Your task to perform on an android device: open app "Adobe Express: Graphic Design" (install if not already installed) and go to login screen Image 0: 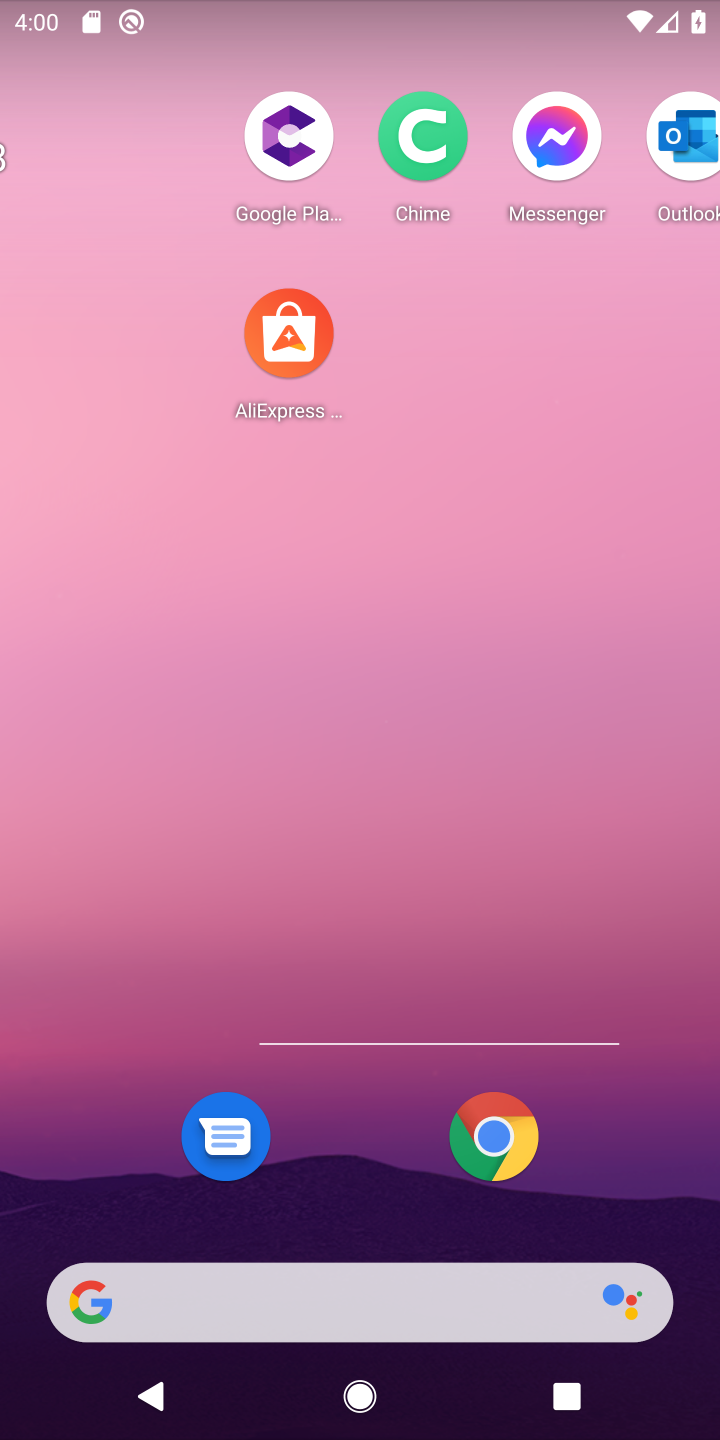
Step 0: drag from (258, 617) to (446, 434)
Your task to perform on an android device: open app "Adobe Express: Graphic Design" (install if not already installed) and go to login screen Image 1: 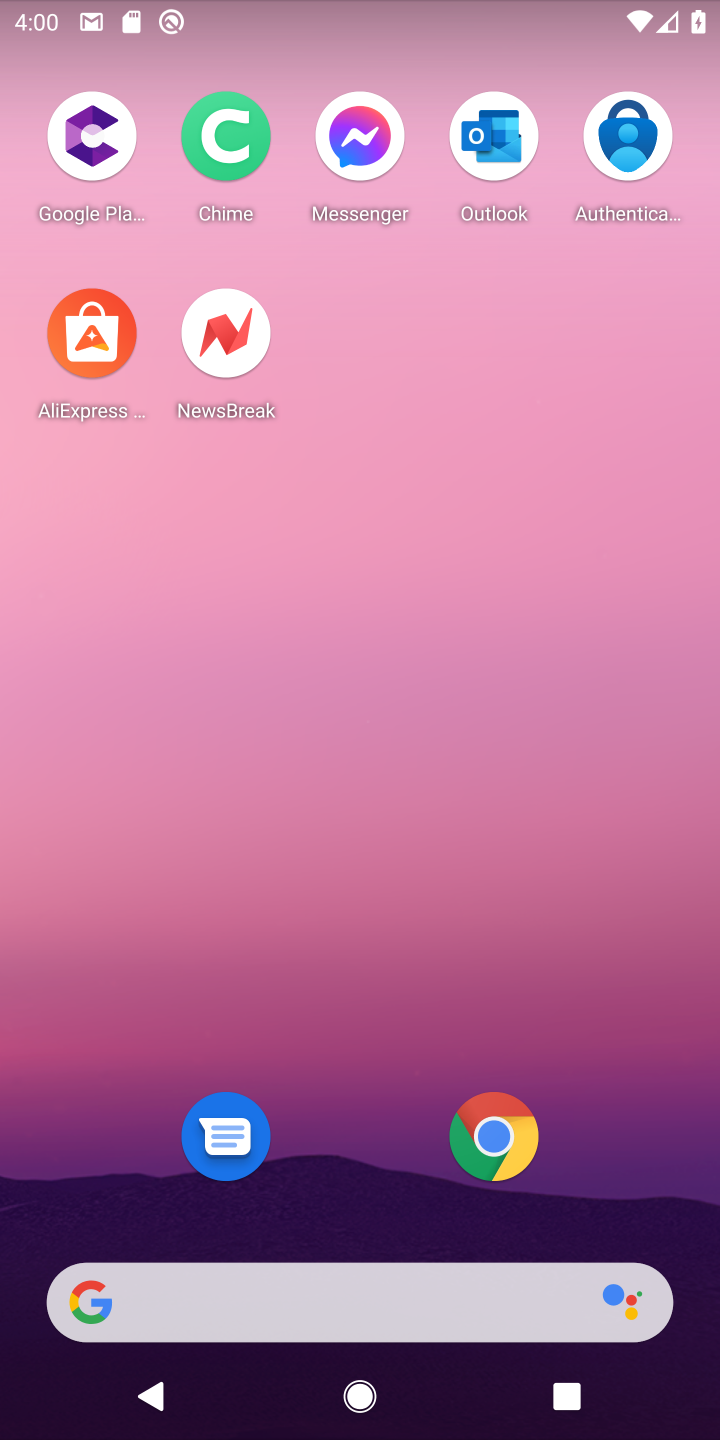
Step 1: drag from (284, 495) to (342, 8)
Your task to perform on an android device: open app "Adobe Express: Graphic Design" (install if not already installed) and go to login screen Image 2: 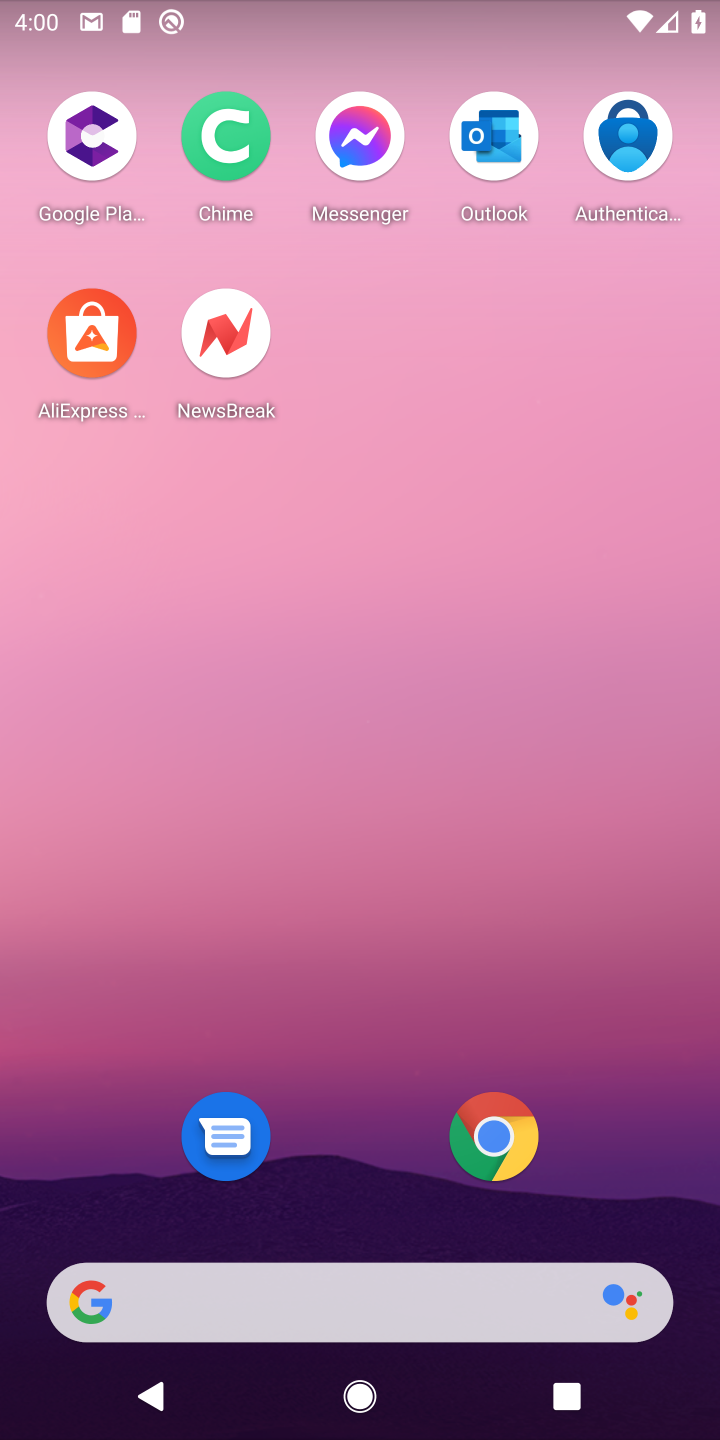
Step 2: drag from (382, 697) to (469, 102)
Your task to perform on an android device: open app "Adobe Express: Graphic Design" (install if not already installed) and go to login screen Image 3: 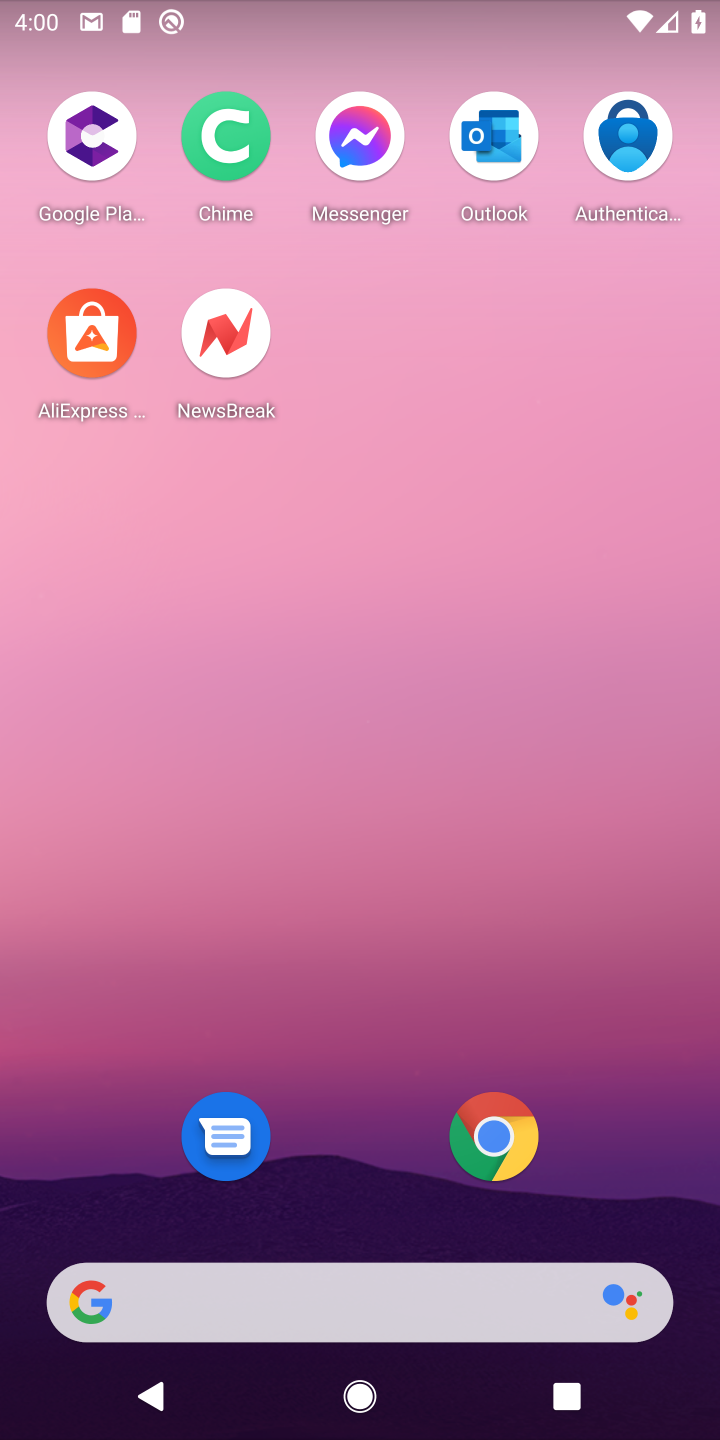
Step 3: drag from (323, 1266) to (345, 123)
Your task to perform on an android device: open app "Adobe Express: Graphic Design" (install if not already installed) and go to login screen Image 4: 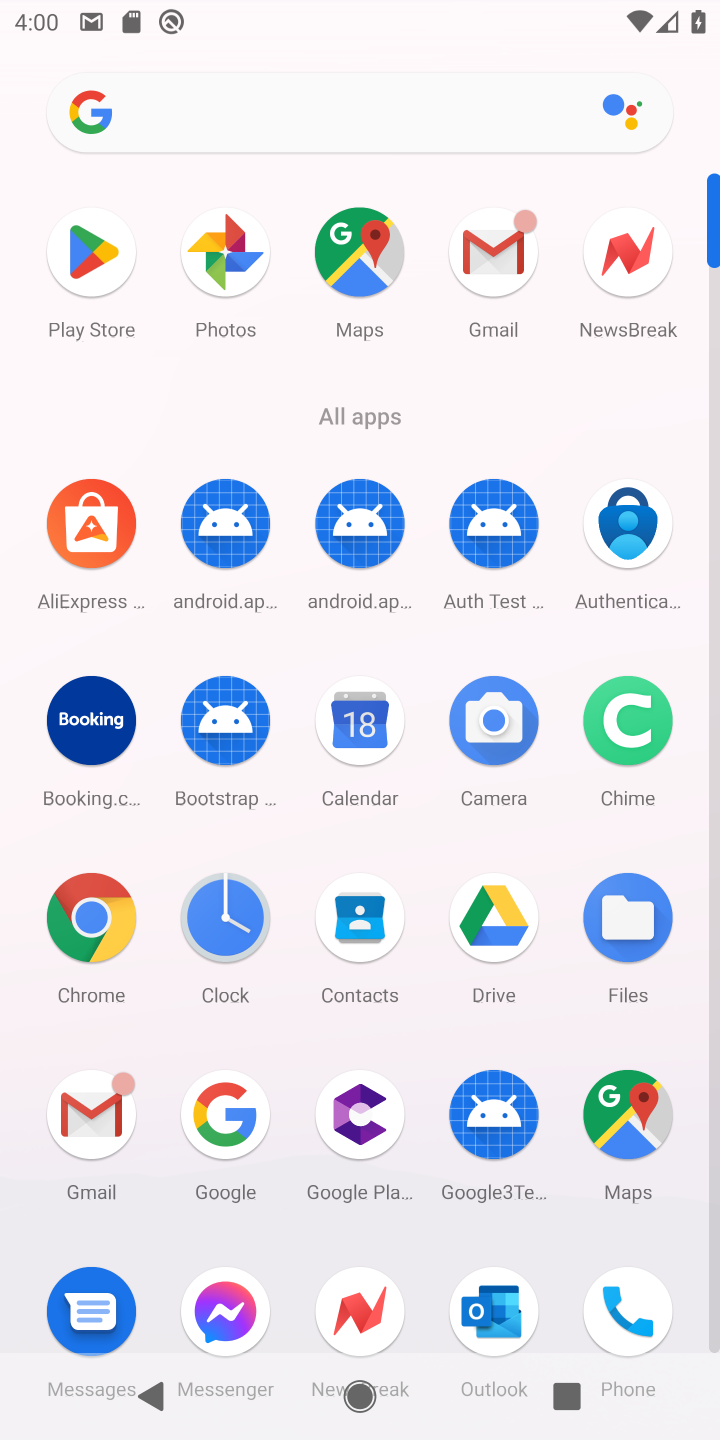
Step 4: click (73, 277)
Your task to perform on an android device: open app "Adobe Express: Graphic Design" (install if not already installed) and go to login screen Image 5: 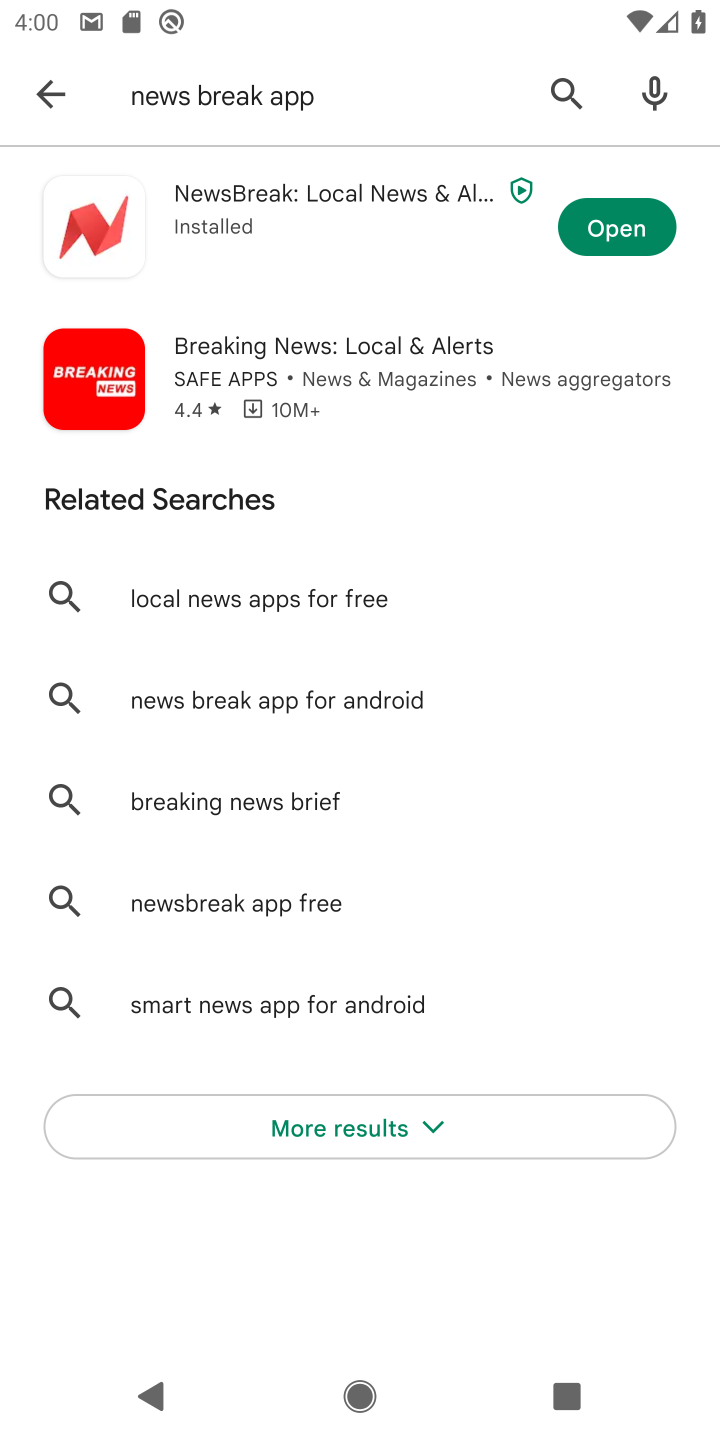
Step 5: click (229, 97)
Your task to perform on an android device: open app "Adobe Express: Graphic Design" (install if not already installed) and go to login screen Image 6: 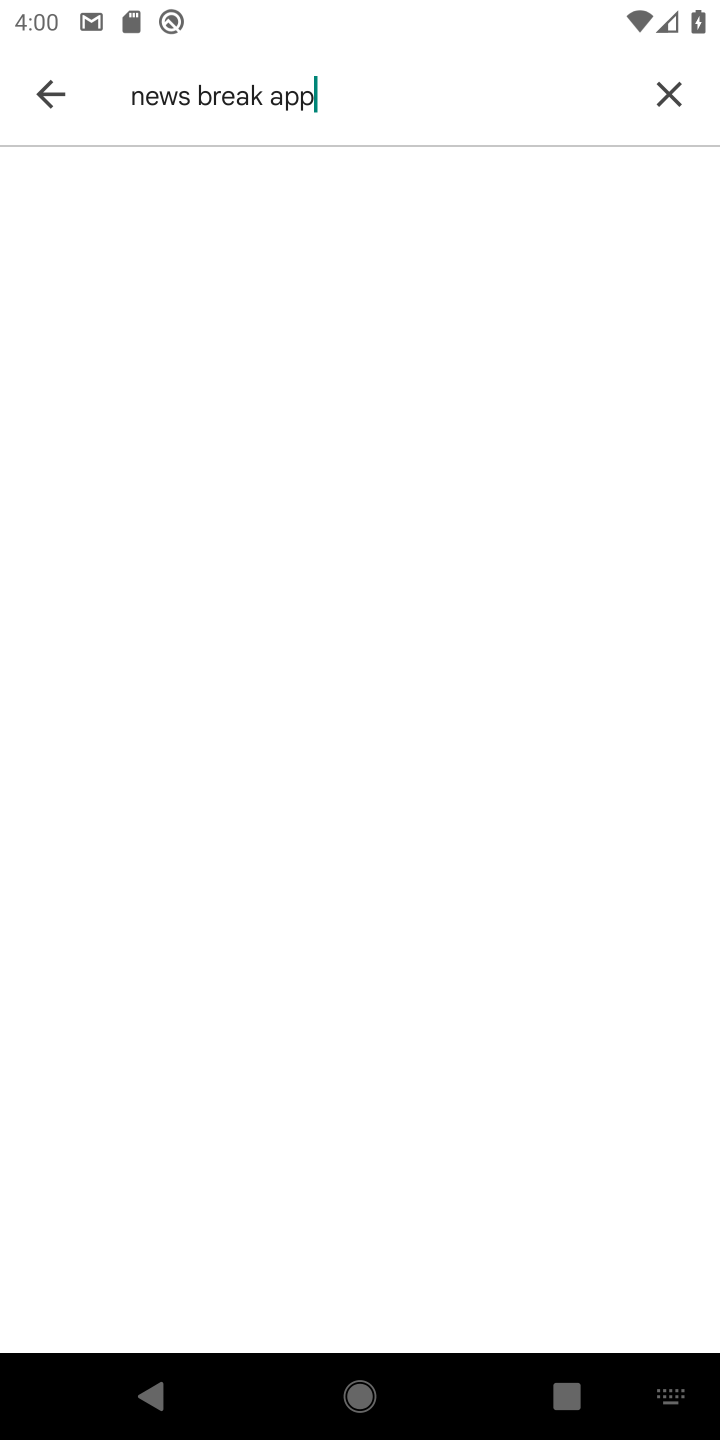
Step 6: click (674, 84)
Your task to perform on an android device: open app "Adobe Express: Graphic Design" (install if not already installed) and go to login screen Image 7: 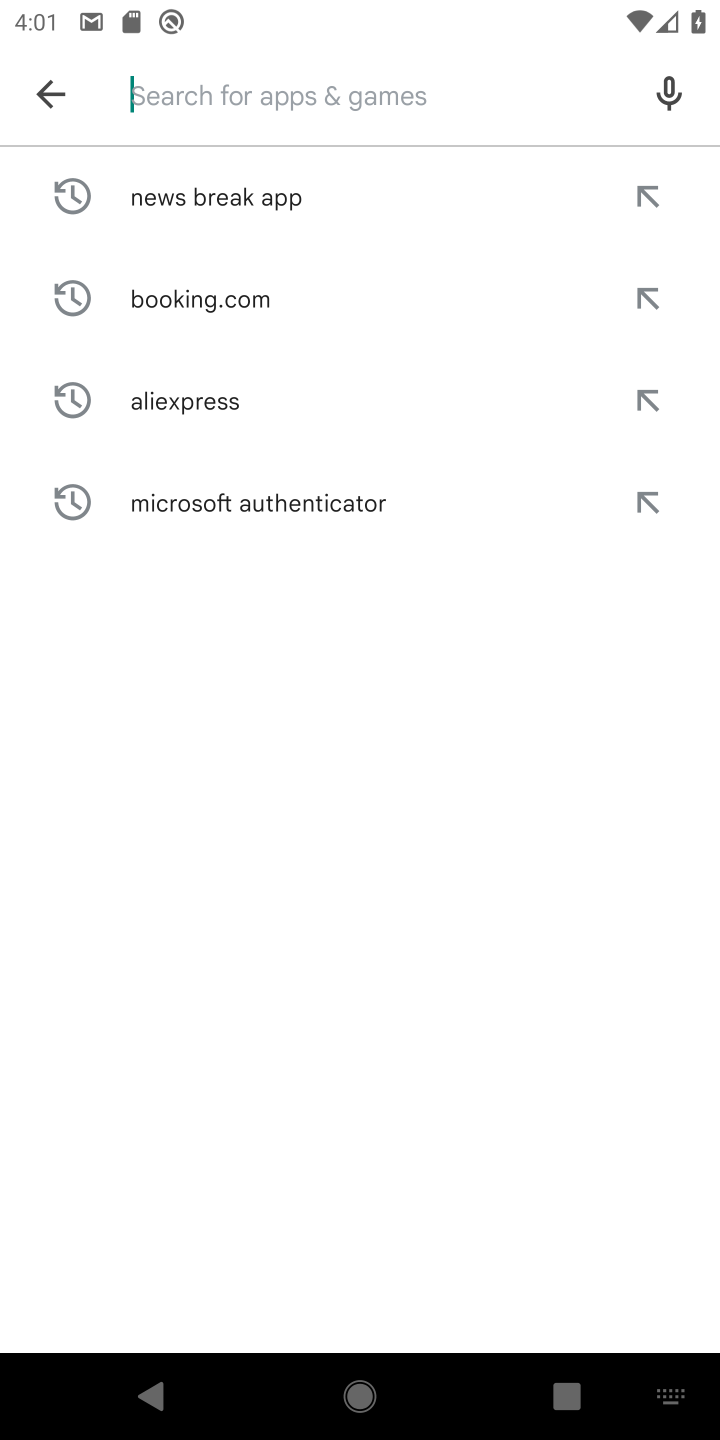
Step 7: type "Adobe express"
Your task to perform on an android device: open app "Adobe Express: Graphic Design" (install if not already installed) and go to login screen Image 8: 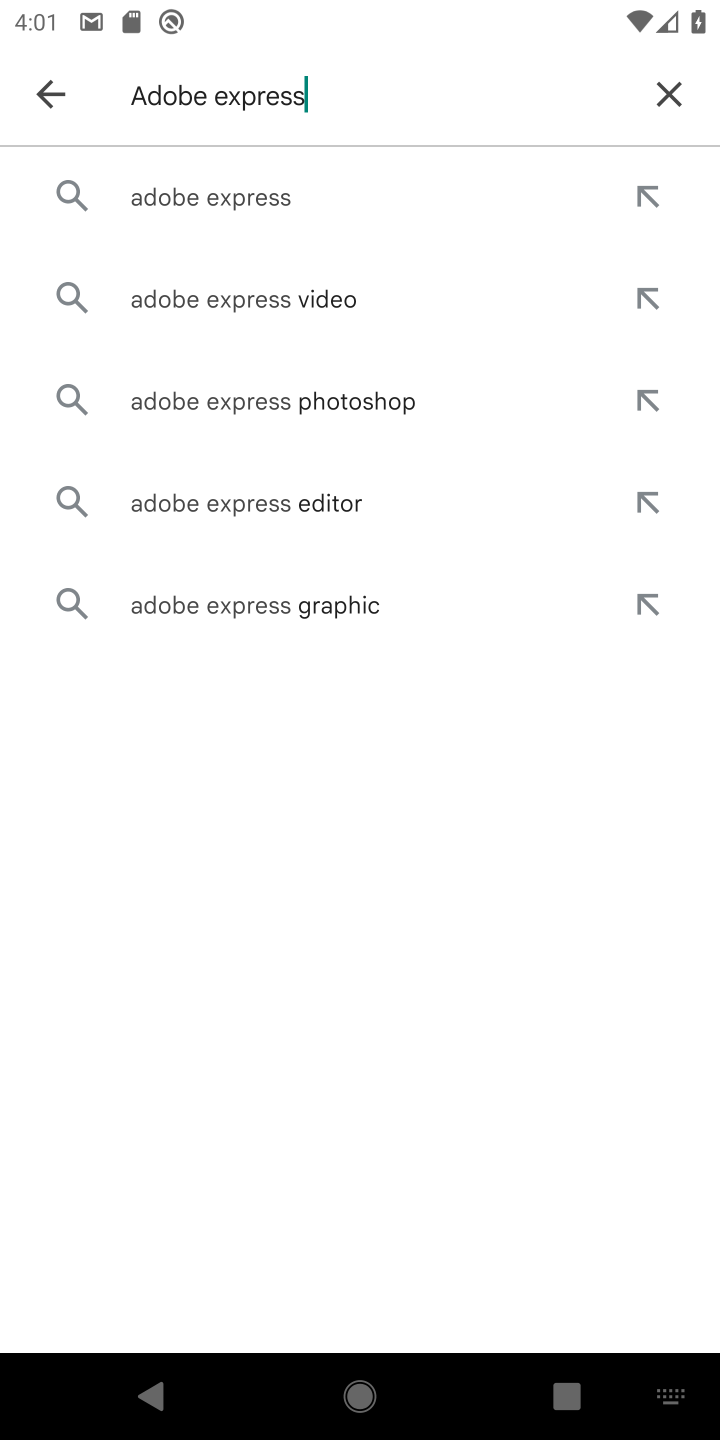
Step 8: click (204, 209)
Your task to perform on an android device: open app "Adobe Express: Graphic Design" (install if not already installed) and go to login screen Image 9: 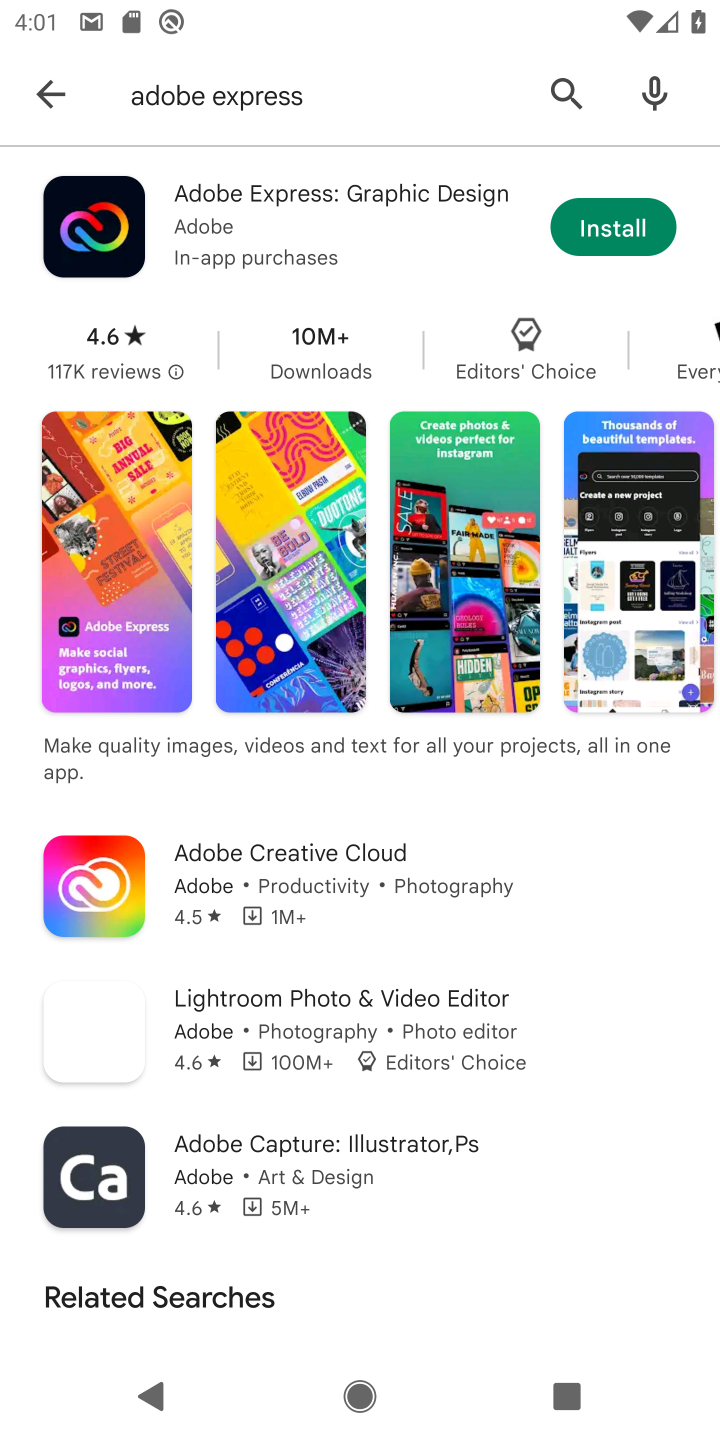
Step 9: click (650, 209)
Your task to perform on an android device: open app "Adobe Express: Graphic Design" (install if not already installed) and go to login screen Image 10: 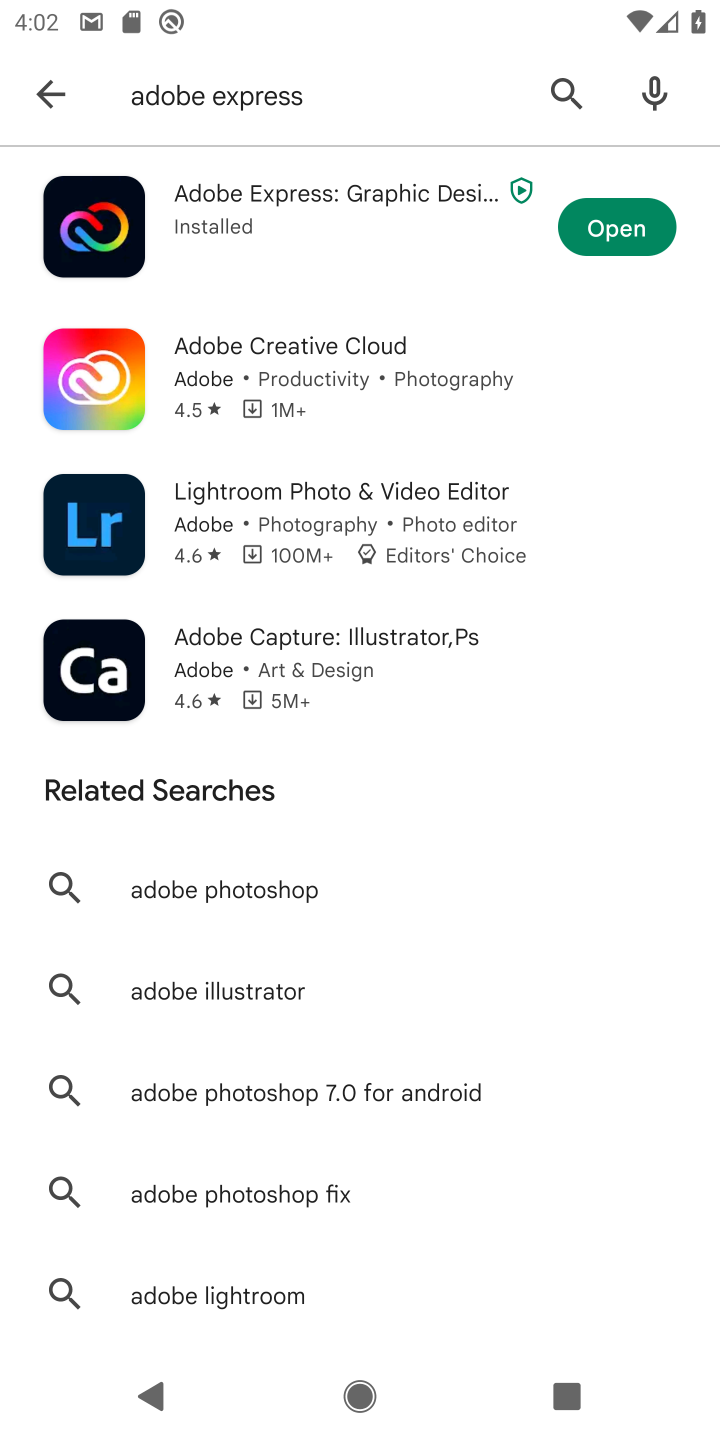
Step 10: click (615, 232)
Your task to perform on an android device: open app "Adobe Express: Graphic Design" (install if not already installed) and go to login screen Image 11: 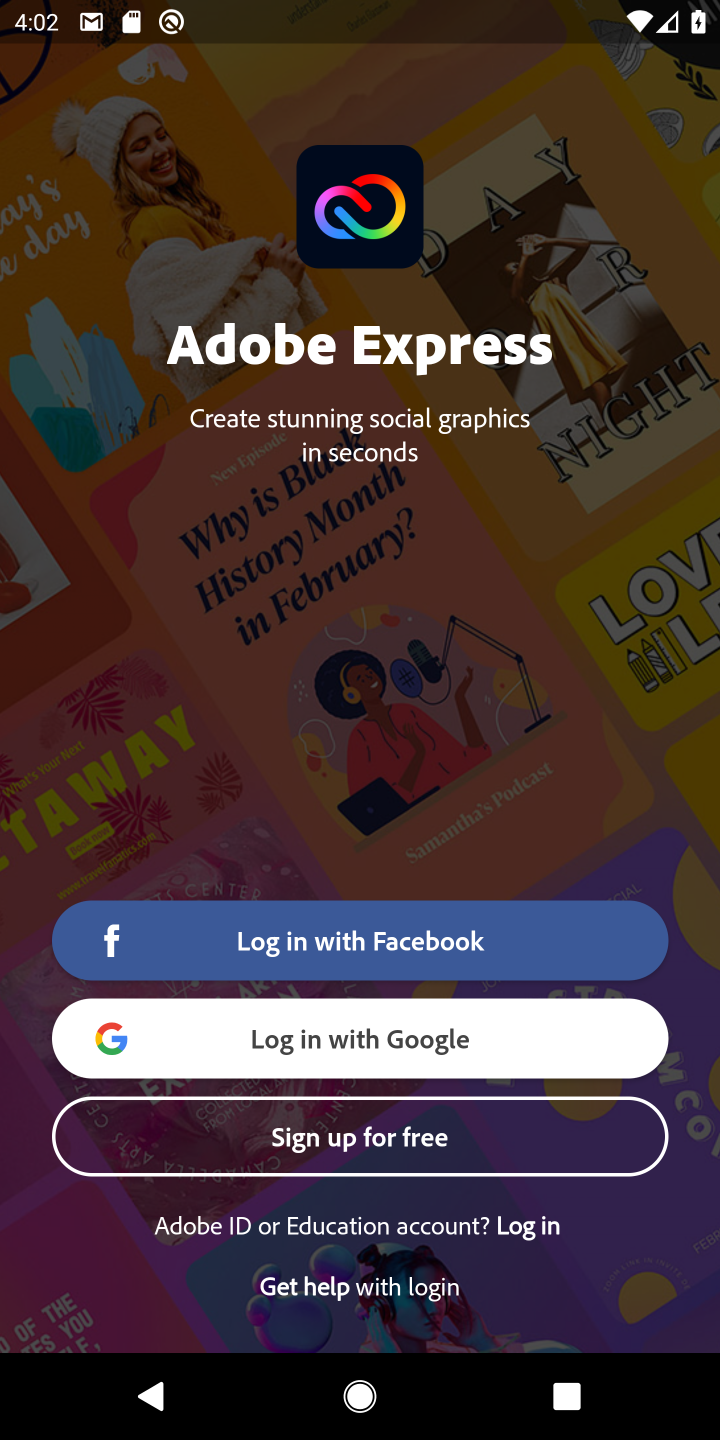
Step 11: click (503, 1239)
Your task to perform on an android device: open app "Adobe Express: Graphic Design" (install if not already installed) and go to login screen Image 12: 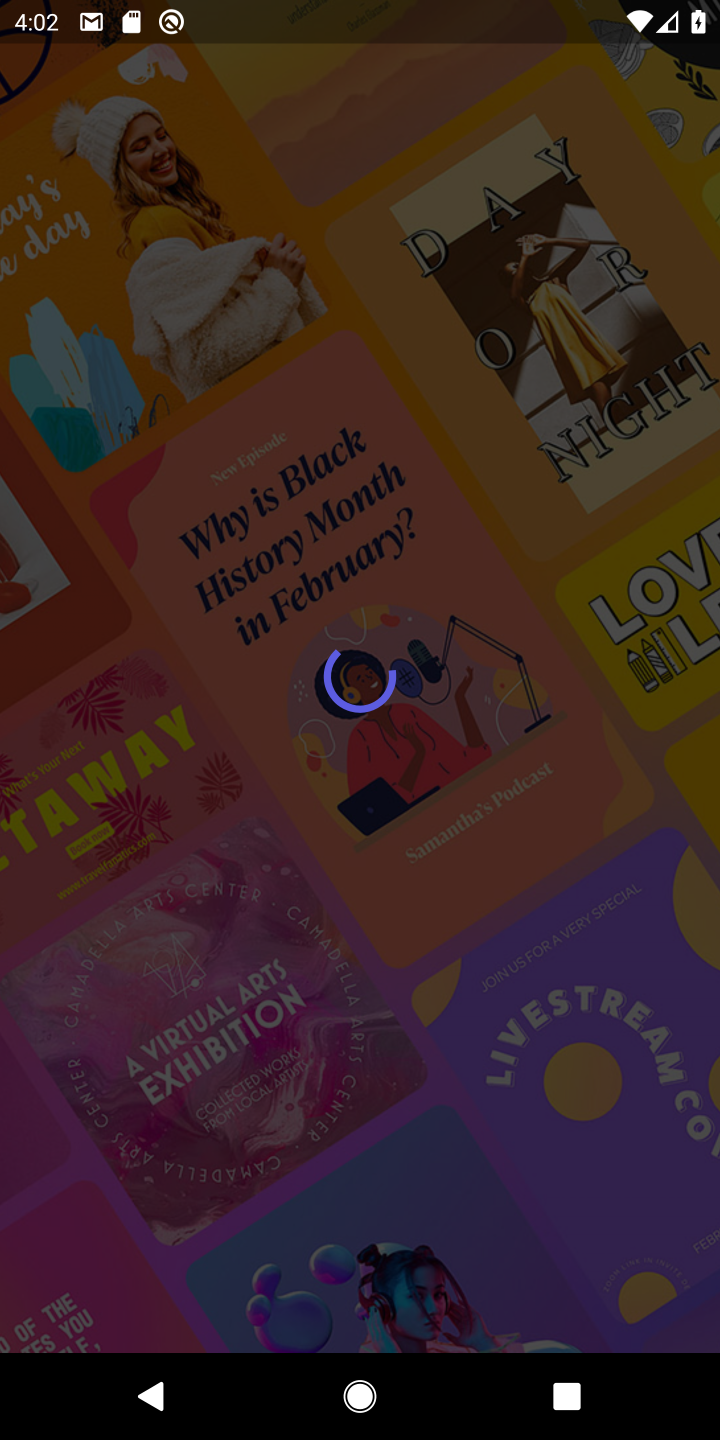
Step 12: click (531, 1229)
Your task to perform on an android device: open app "Adobe Express: Graphic Design" (install if not already installed) and go to login screen Image 13: 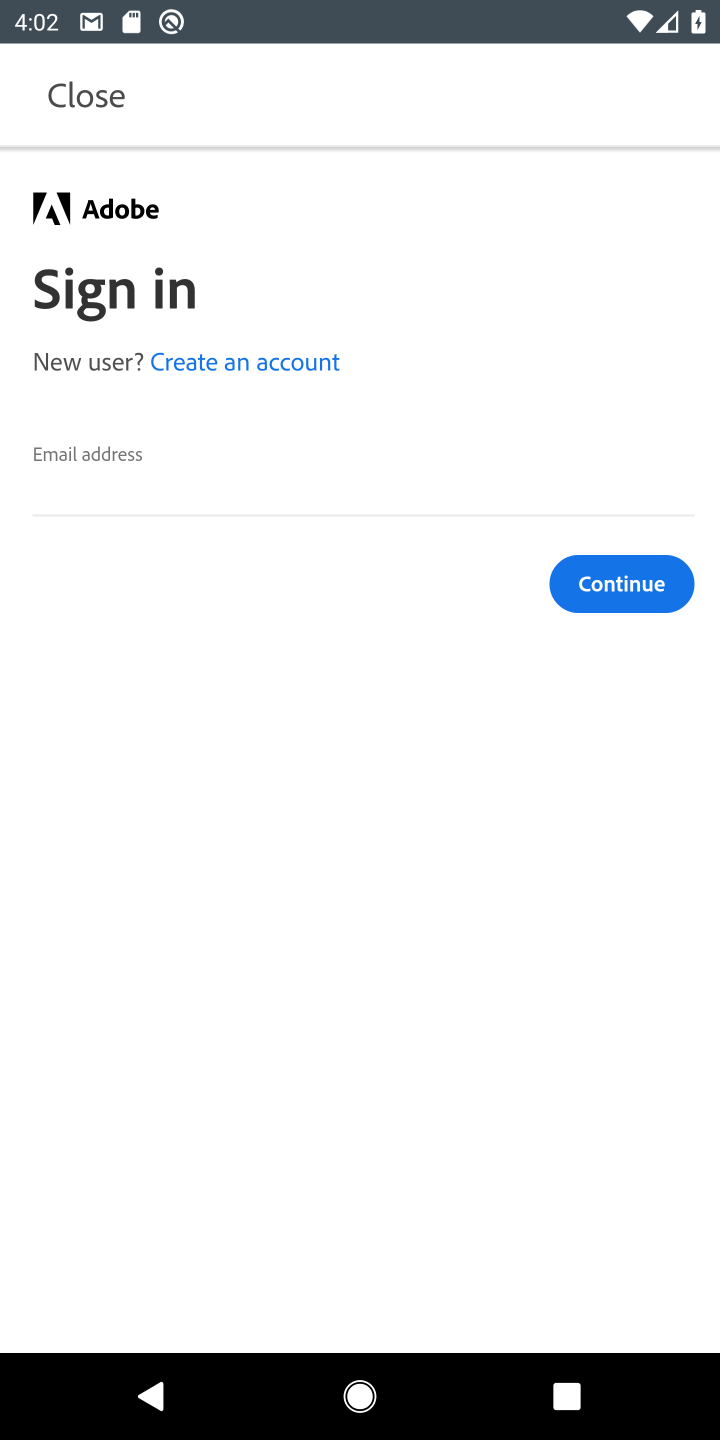
Step 13: task complete